Your task to perform on an android device: Open display settings Image 0: 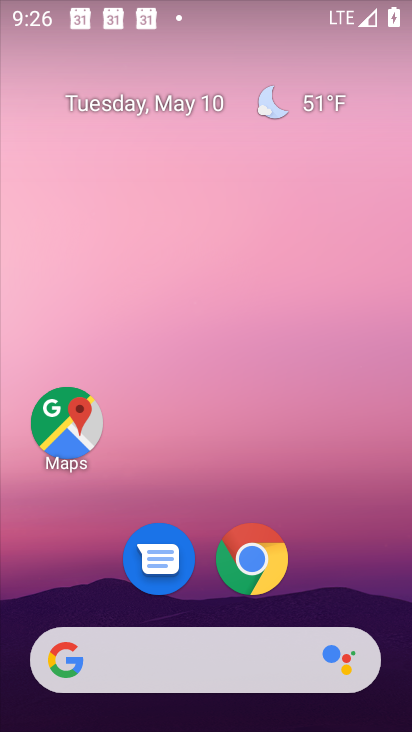
Step 0: drag from (322, 548) to (232, 190)
Your task to perform on an android device: Open display settings Image 1: 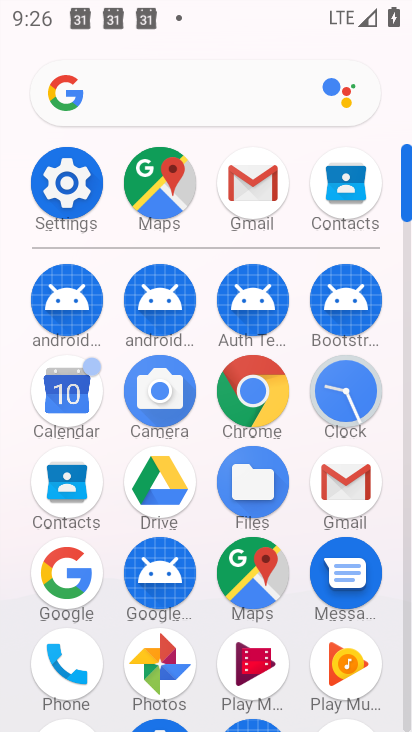
Step 1: click (68, 181)
Your task to perform on an android device: Open display settings Image 2: 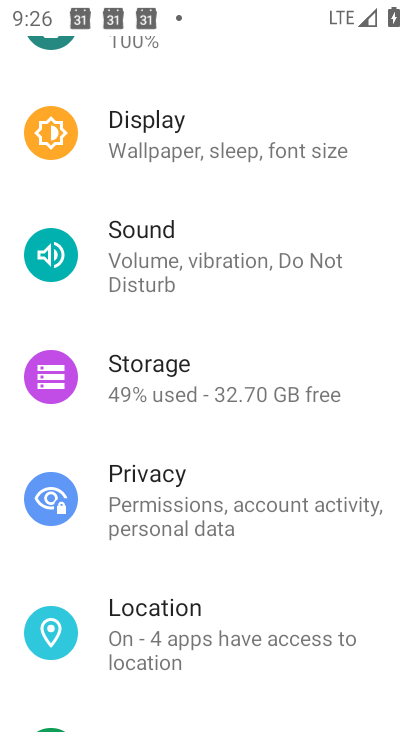
Step 2: drag from (201, 223) to (221, 394)
Your task to perform on an android device: Open display settings Image 3: 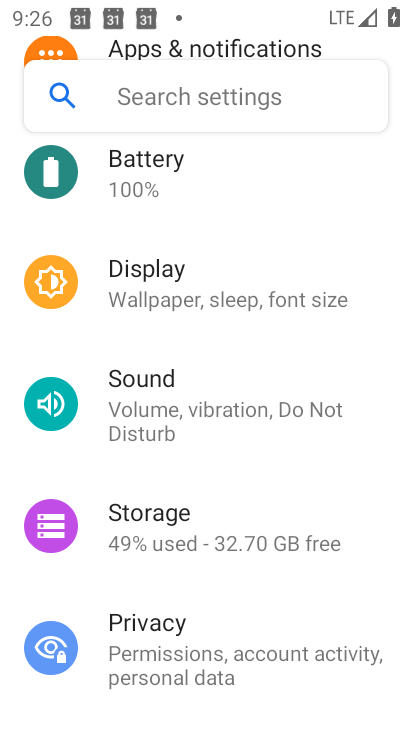
Step 3: click (200, 299)
Your task to perform on an android device: Open display settings Image 4: 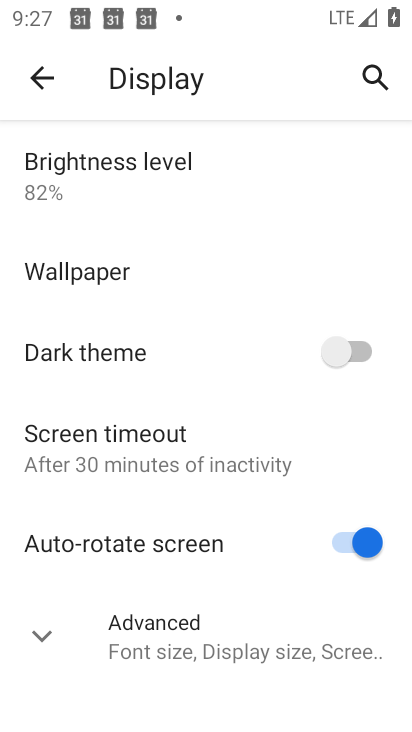
Step 4: task complete